Your task to perform on an android device: Go to privacy settings Image 0: 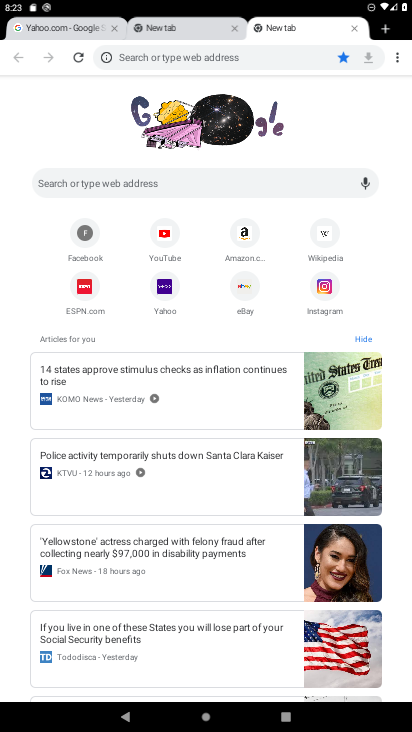
Step 0: press home button
Your task to perform on an android device: Go to privacy settings Image 1: 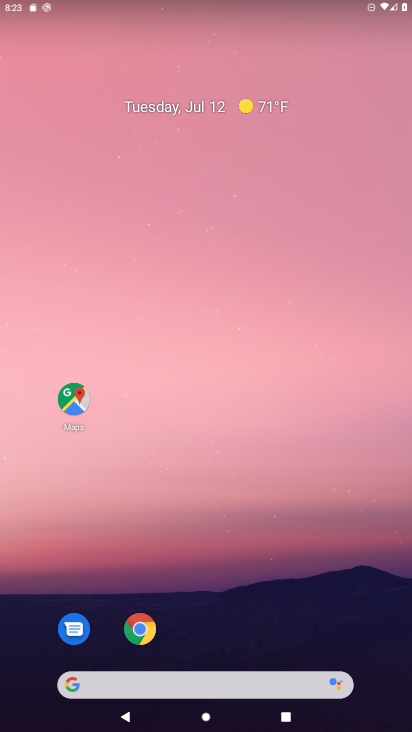
Step 1: drag from (384, 613) to (342, 79)
Your task to perform on an android device: Go to privacy settings Image 2: 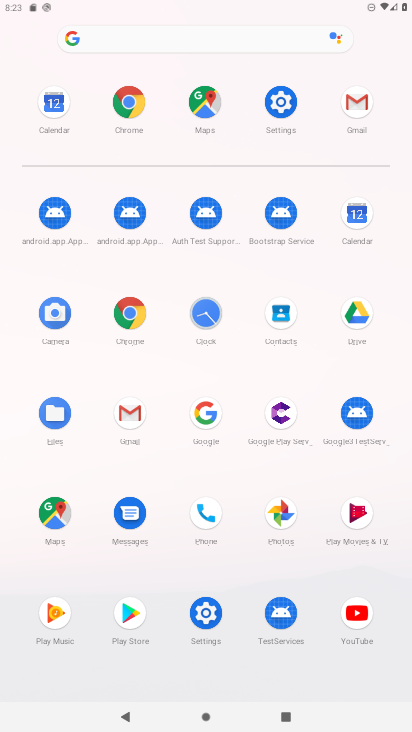
Step 2: drag from (281, 99) to (187, 435)
Your task to perform on an android device: Go to privacy settings Image 3: 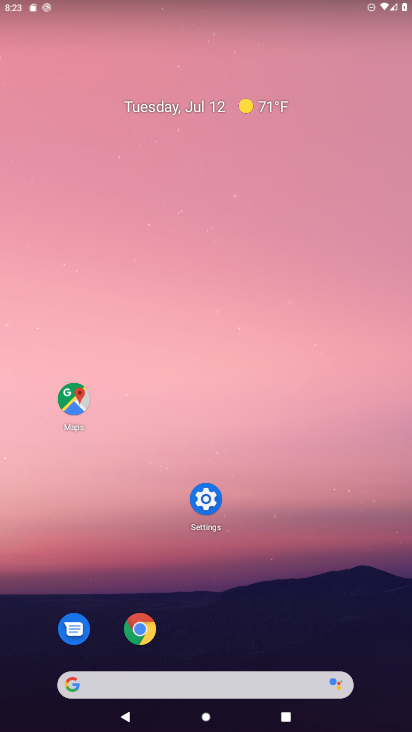
Step 3: click (203, 498)
Your task to perform on an android device: Go to privacy settings Image 4: 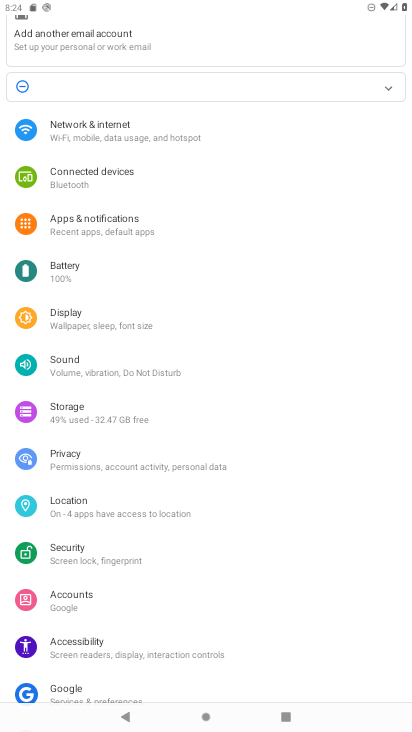
Step 4: click (68, 456)
Your task to perform on an android device: Go to privacy settings Image 5: 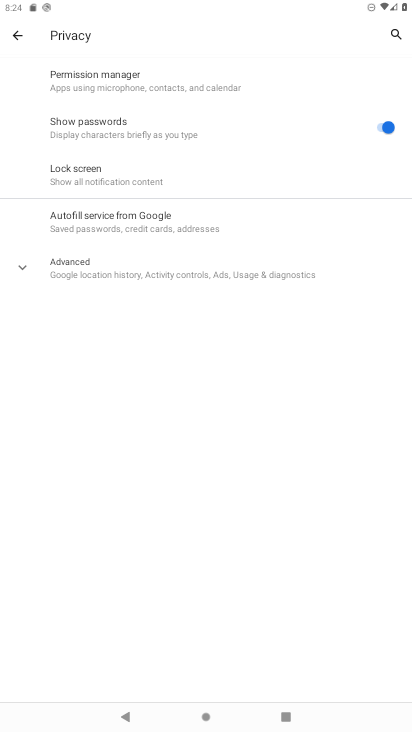
Step 5: click (101, 454)
Your task to perform on an android device: Go to privacy settings Image 6: 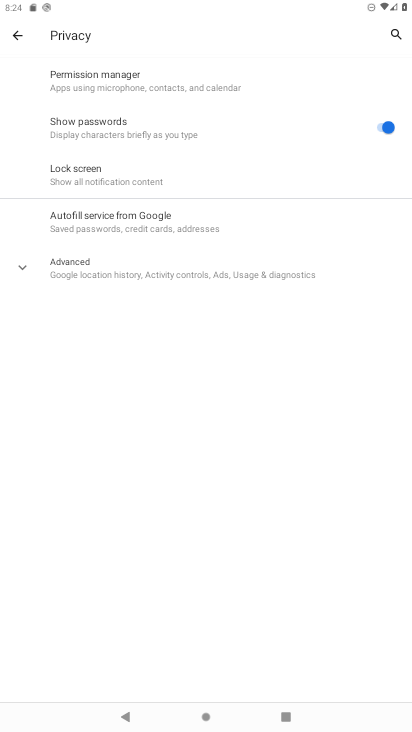
Step 6: click (19, 262)
Your task to perform on an android device: Go to privacy settings Image 7: 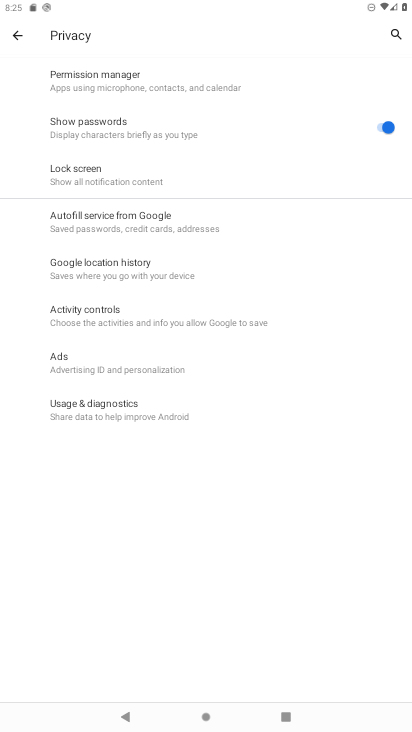
Step 7: task complete